Your task to perform on an android device: Open location settings Image 0: 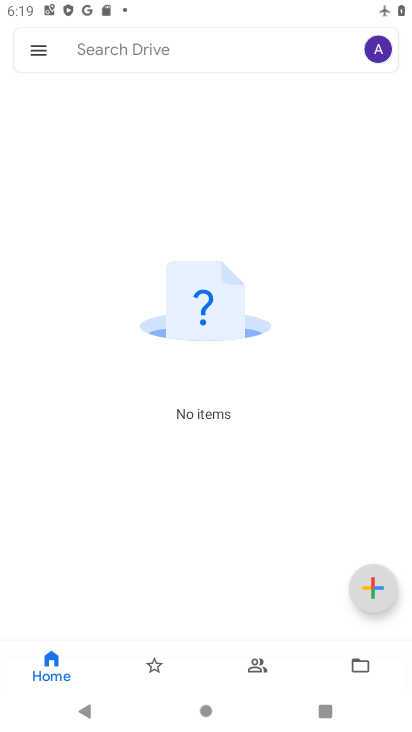
Step 0: press home button
Your task to perform on an android device: Open location settings Image 1: 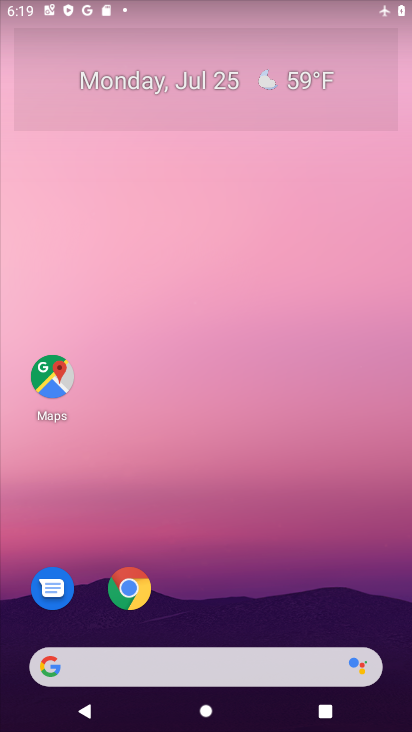
Step 1: drag from (270, 555) to (244, 202)
Your task to perform on an android device: Open location settings Image 2: 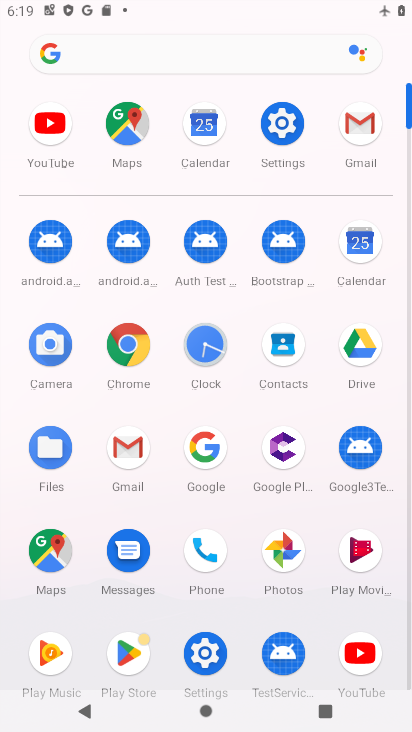
Step 2: click (275, 143)
Your task to perform on an android device: Open location settings Image 3: 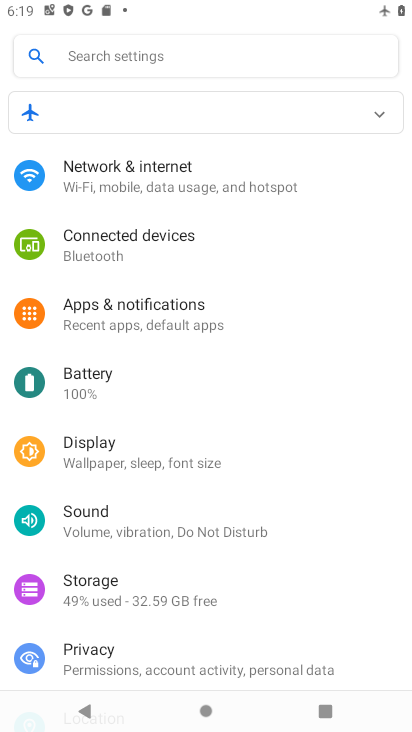
Step 3: drag from (265, 575) to (250, 429)
Your task to perform on an android device: Open location settings Image 4: 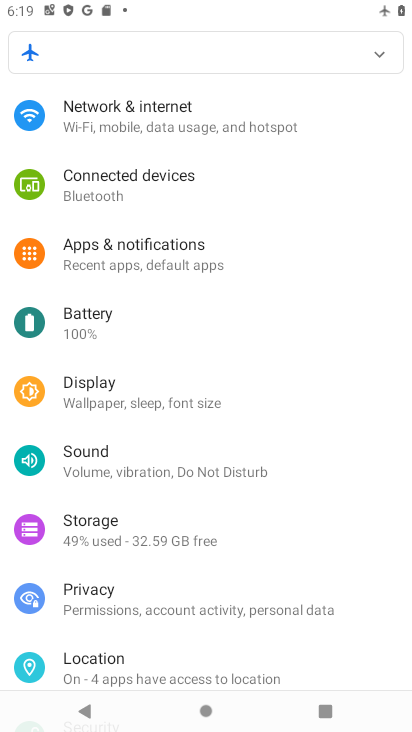
Step 4: click (200, 662)
Your task to perform on an android device: Open location settings Image 5: 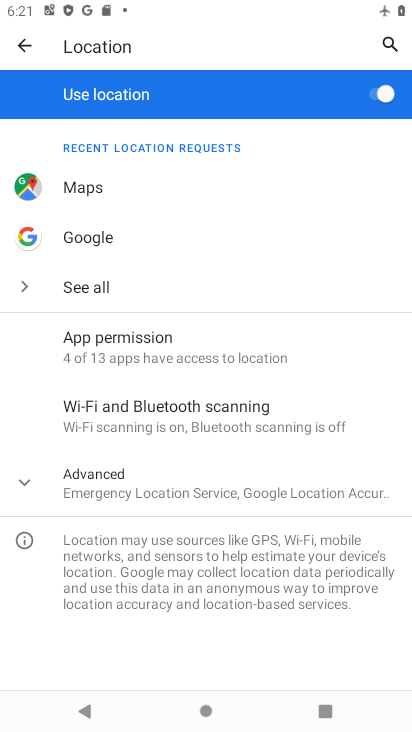
Step 5: task complete